Your task to perform on an android device: Open maps Image 0: 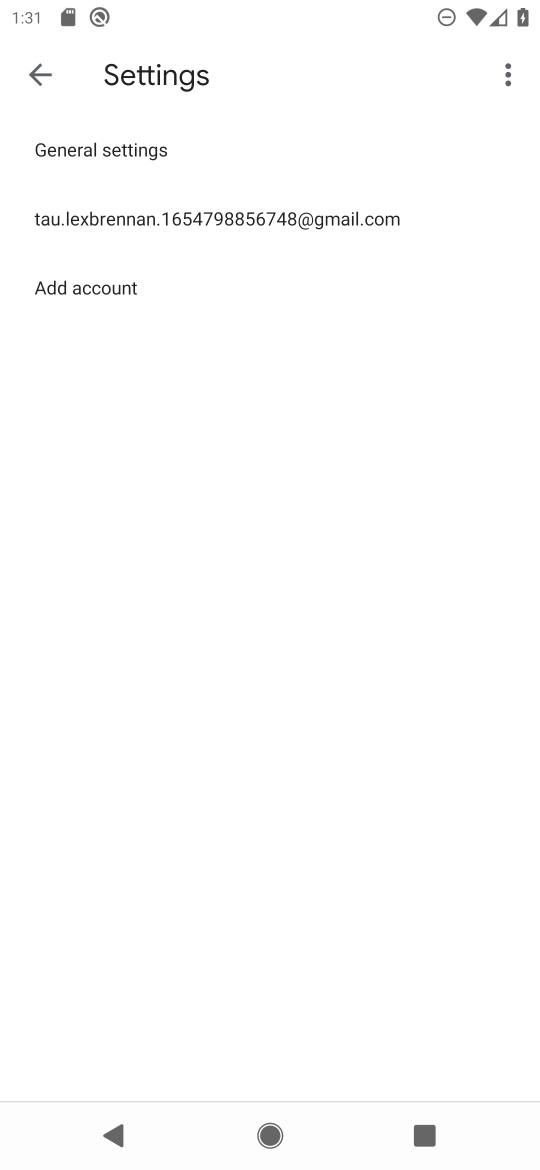
Step 0: press home button
Your task to perform on an android device: Open maps Image 1: 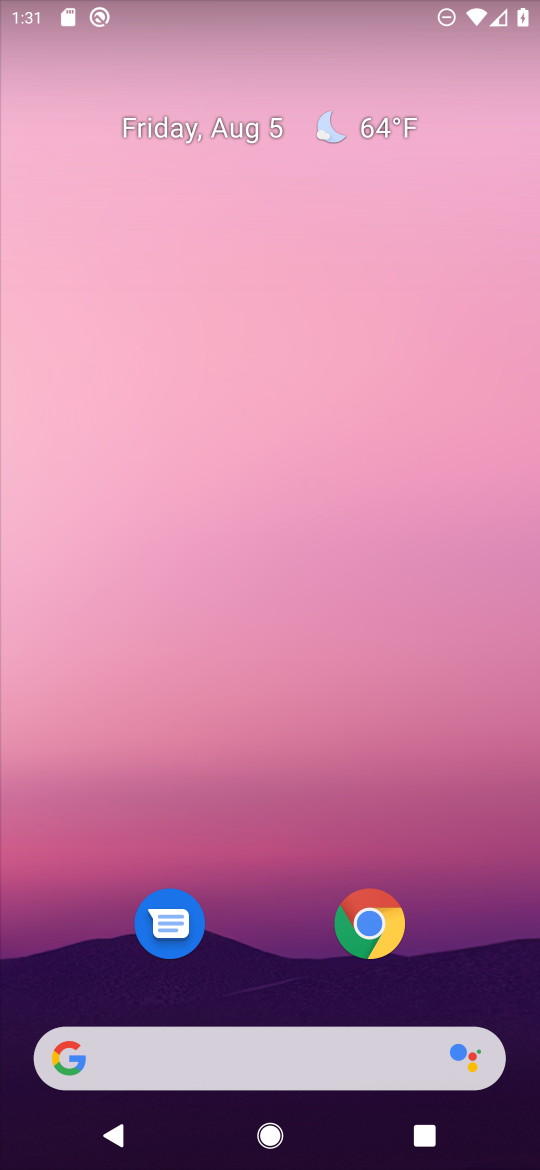
Step 1: drag from (215, 814) to (184, 122)
Your task to perform on an android device: Open maps Image 2: 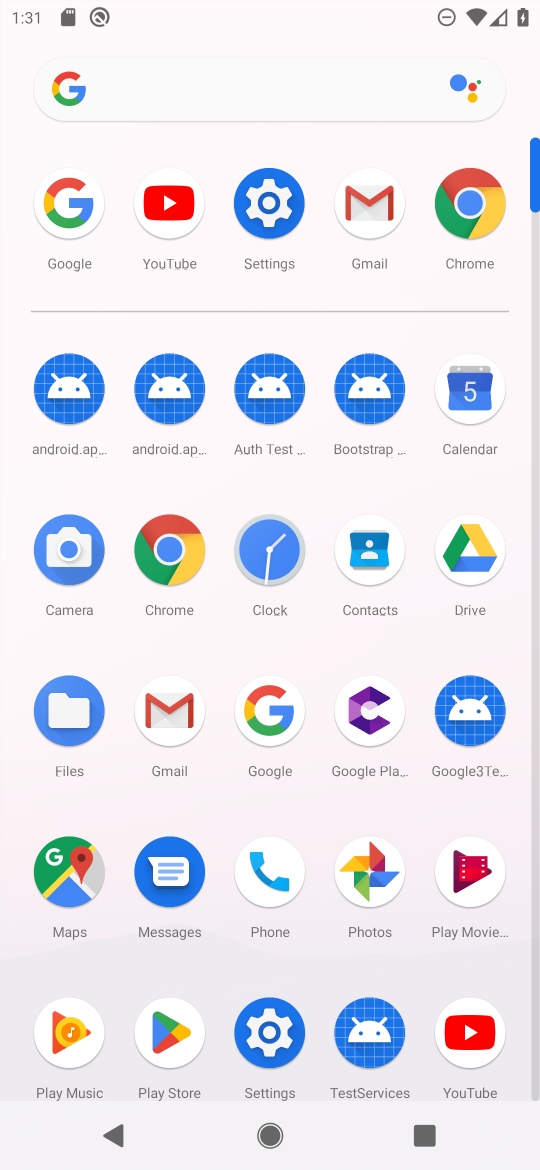
Step 2: click (59, 847)
Your task to perform on an android device: Open maps Image 3: 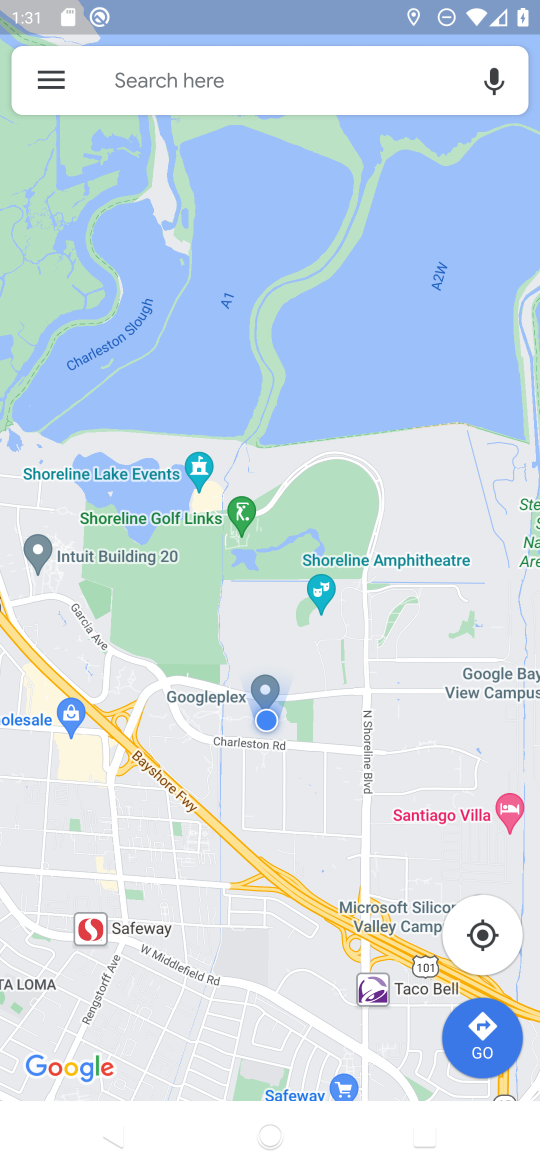
Step 3: task complete